Your task to perform on an android device: change the upload size in google photos Image 0: 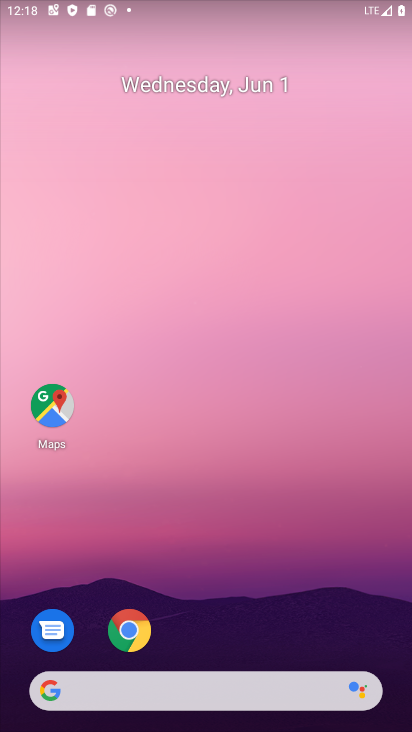
Step 0: drag from (261, 624) to (295, 65)
Your task to perform on an android device: change the upload size in google photos Image 1: 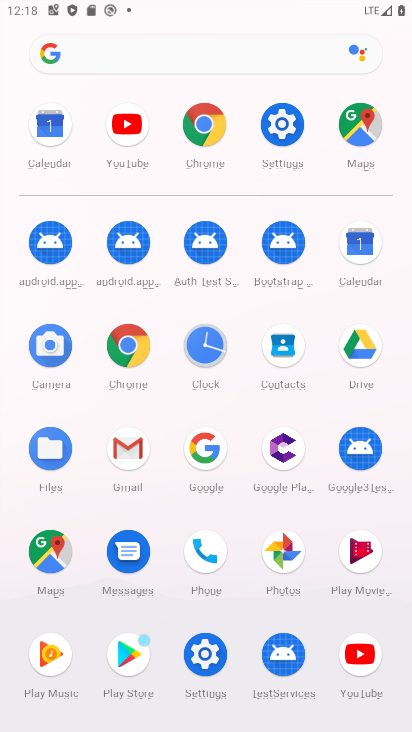
Step 1: click (286, 560)
Your task to perform on an android device: change the upload size in google photos Image 2: 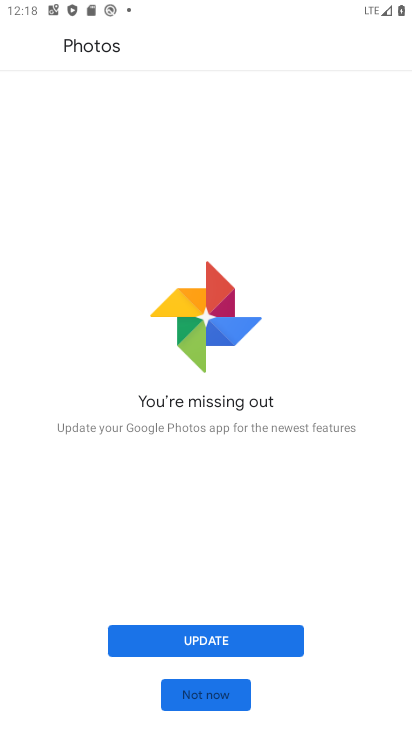
Step 2: click (255, 649)
Your task to perform on an android device: change the upload size in google photos Image 3: 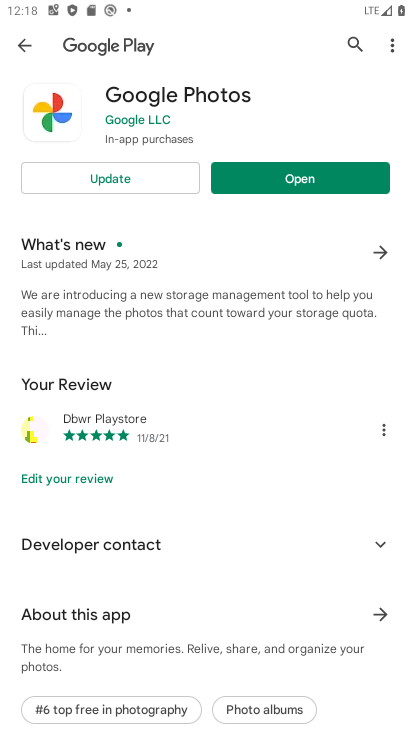
Step 3: click (154, 169)
Your task to perform on an android device: change the upload size in google photos Image 4: 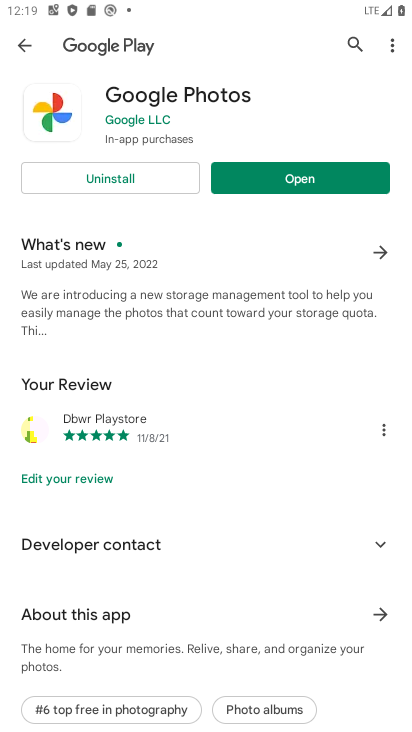
Step 4: click (300, 175)
Your task to perform on an android device: change the upload size in google photos Image 5: 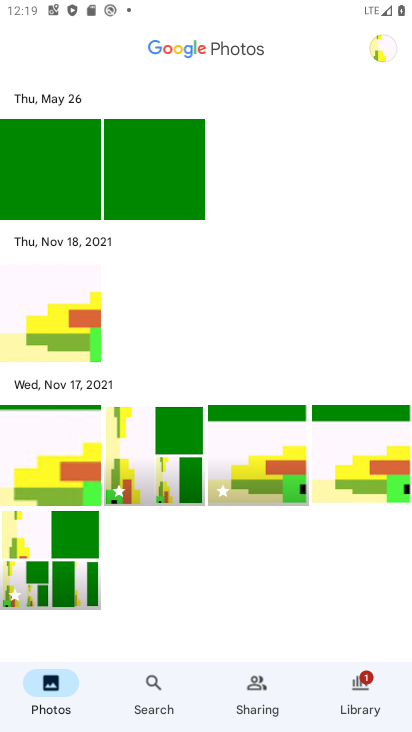
Step 5: click (377, 48)
Your task to perform on an android device: change the upload size in google photos Image 6: 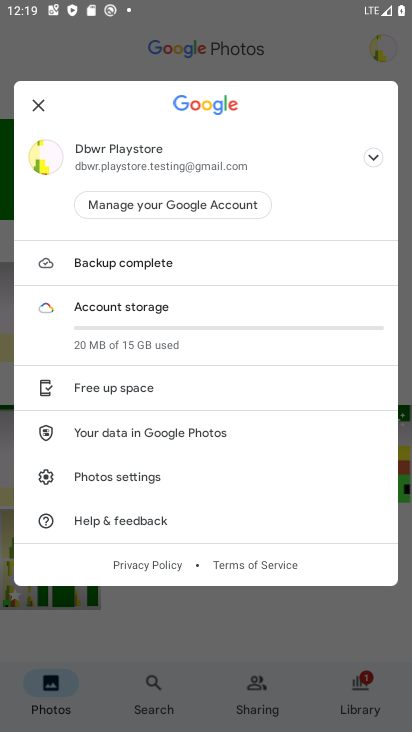
Step 6: click (235, 150)
Your task to perform on an android device: change the upload size in google photos Image 7: 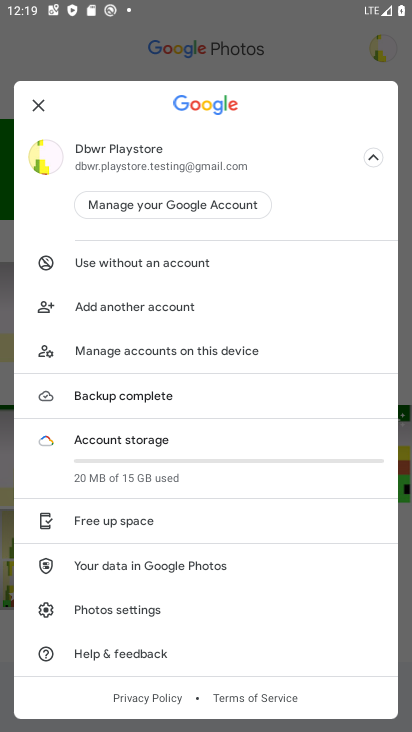
Step 7: click (143, 608)
Your task to perform on an android device: change the upload size in google photos Image 8: 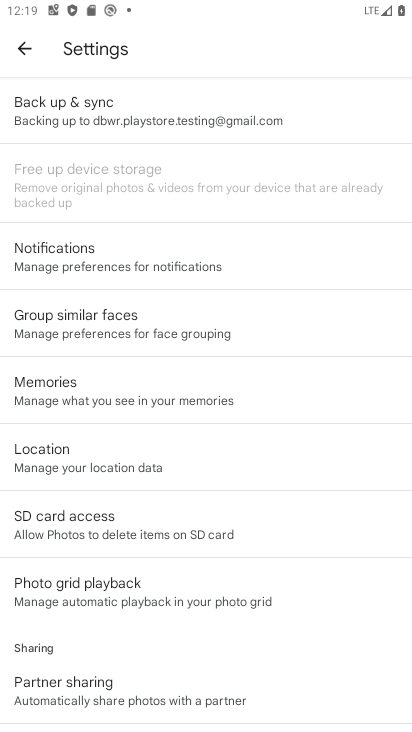
Step 8: click (94, 108)
Your task to perform on an android device: change the upload size in google photos Image 9: 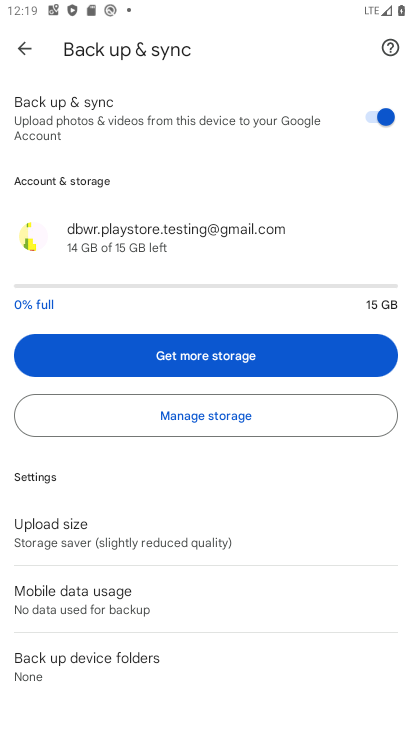
Step 9: click (111, 541)
Your task to perform on an android device: change the upload size in google photos Image 10: 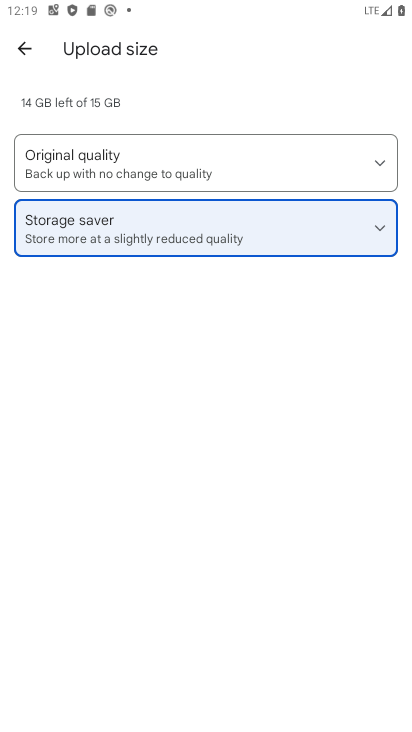
Step 10: click (118, 167)
Your task to perform on an android device: change the upload size in google photos Image 11: 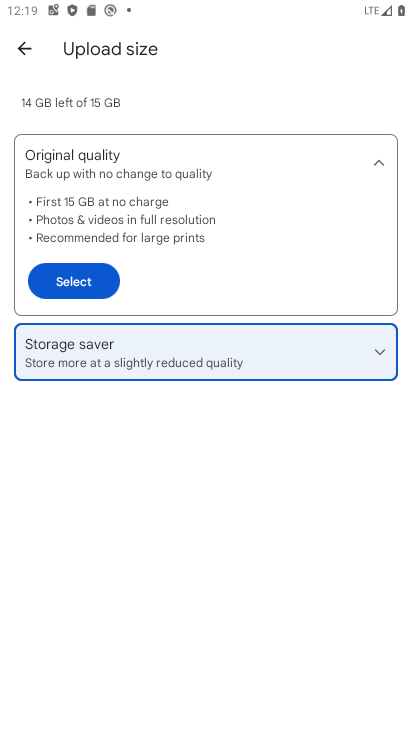
Step 11: click (92, 283)
Your task to perform on an android device: change the upload size in google photos Image 12: 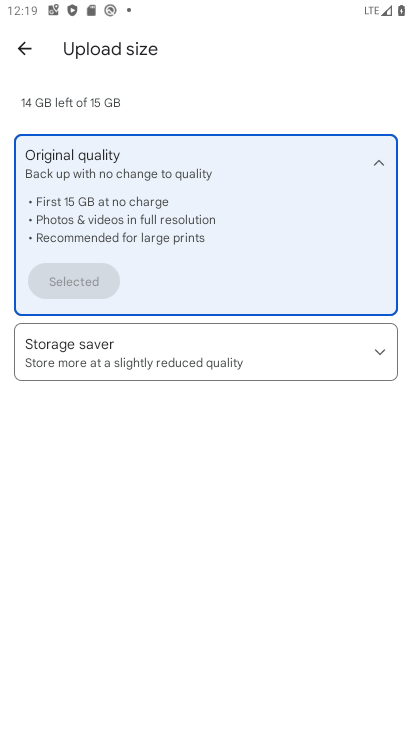
Step 12: task complete